Your task to perform on an android device: Open location settings Image 0: 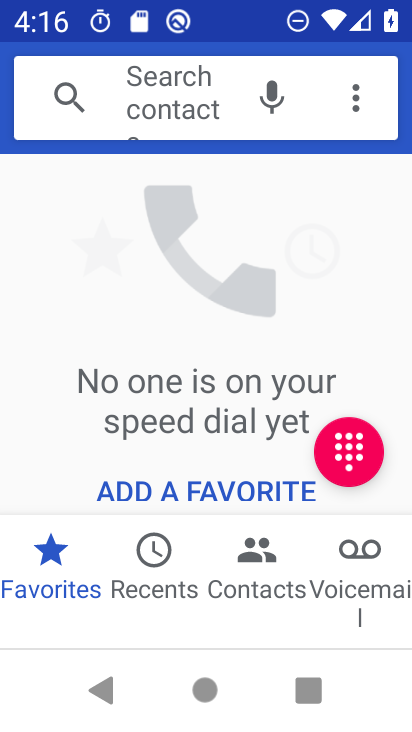
Step 0: press home button
Your task to perform on an android device: Open location settings Image 1: 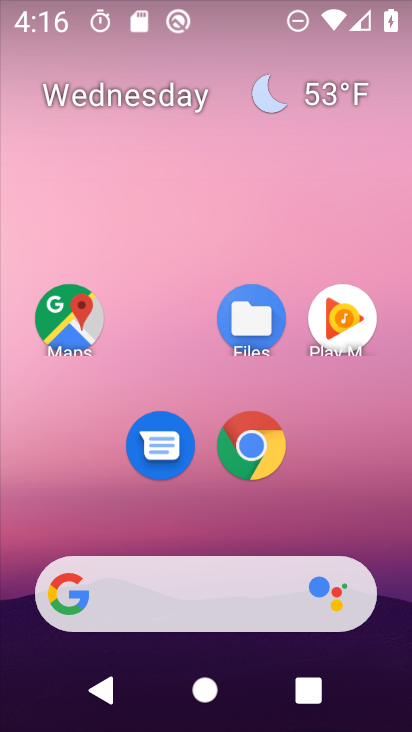
Step 1: drag from (309, 507) to (289, 106)
Your task to perform on an android device: Open location settings Image 2: 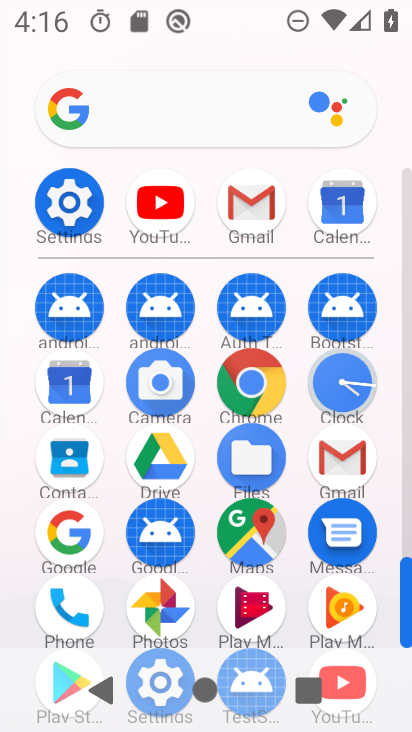
Step 2: click (87, 208)
Your task to perform on an android device: Open location settings Image 3: 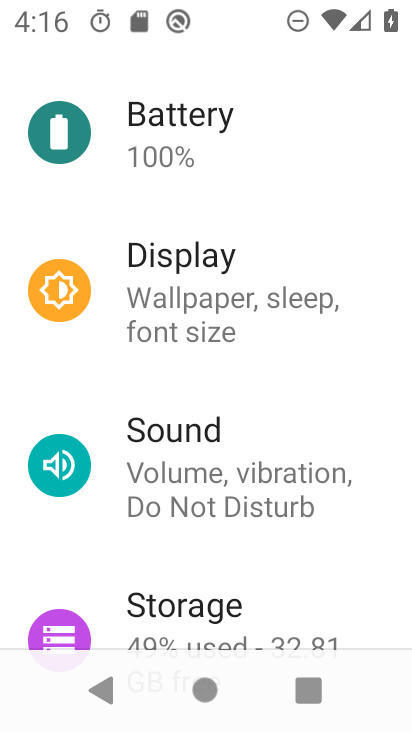
Step 3: drag from (286, 597) to (281, 232)
Your task to perform on an android device: Open location settings Image 4: 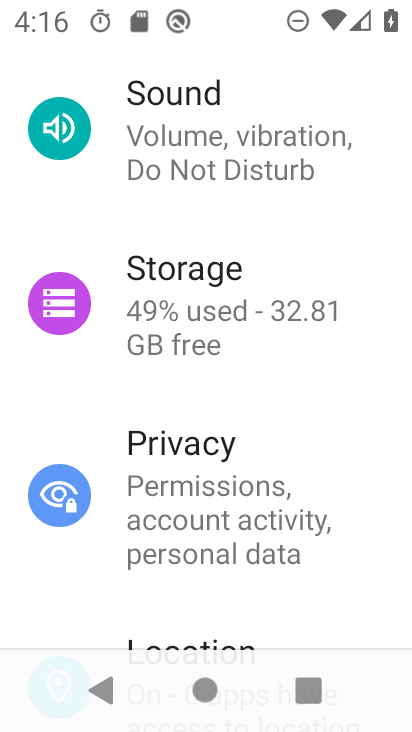
Step 4: drag from (273, 541) to (250, 161)
Your task to perform on an android device: Open location settings Image 5: 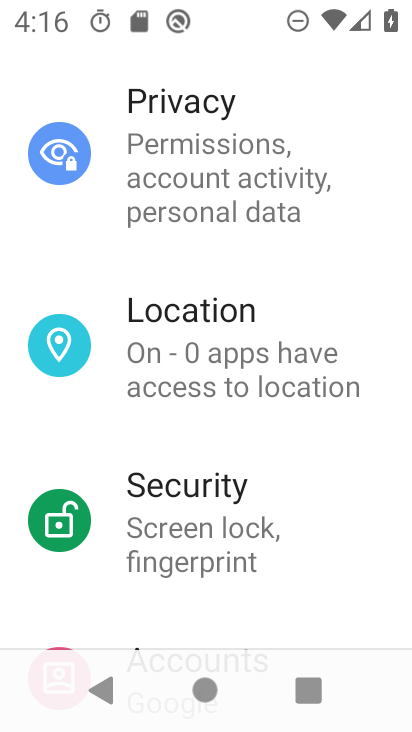
Step 5: click (257, 363)
Your task to perform on an android device: Open location settings Image 6: 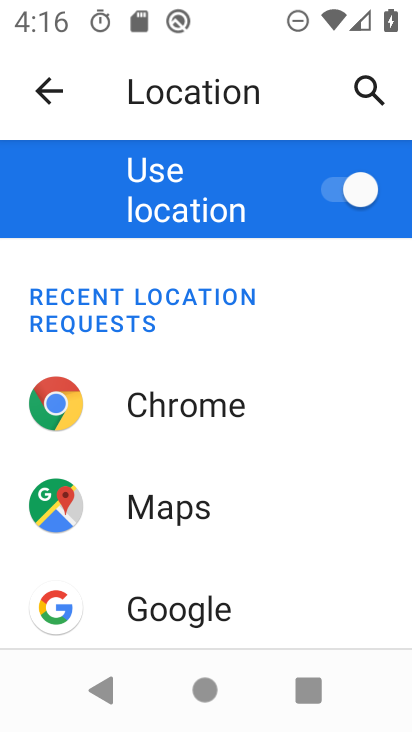
Step 6: task complete